Your task to perform on an android device: What's on my calendar today? Image 0: 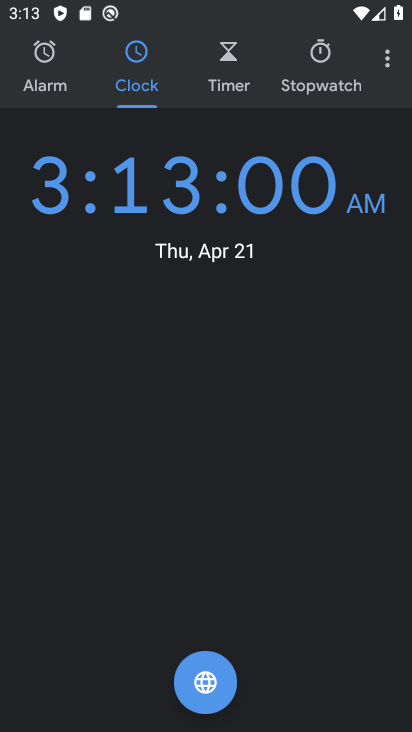
Step 0: press home button
Your task to perform on an android device: What's on my calendar today? Image 1: 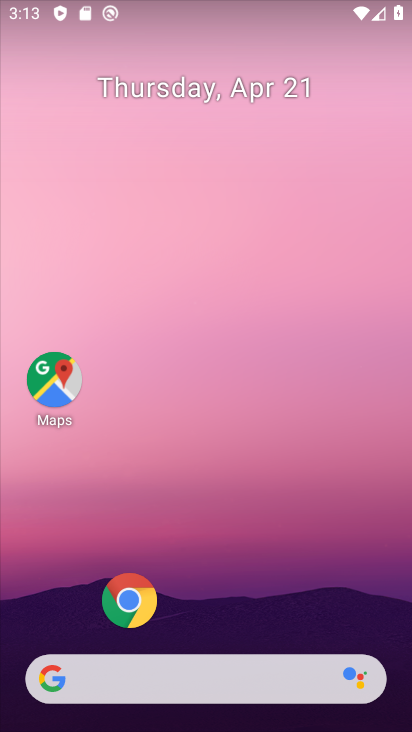
Step 1: drag from (115, 527) to (303, 194)
Your task to perform on an android device: What's on my calendar today? Image 2: 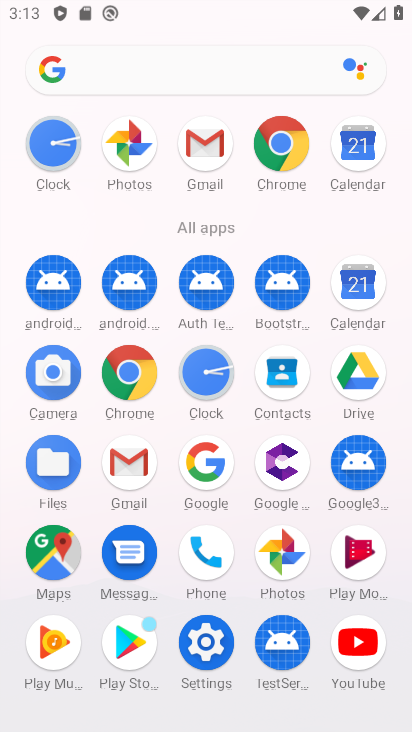
Step 2: click (353, 281)
Your task to perform on an android device: What's on my calendar today? Image 3: 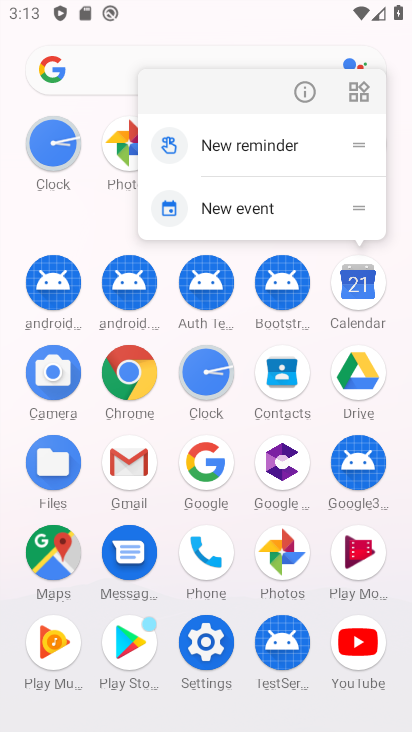
Step 3: click (359, 307)
Your task to perform on an android device: What's on my calendar today? Image 4: 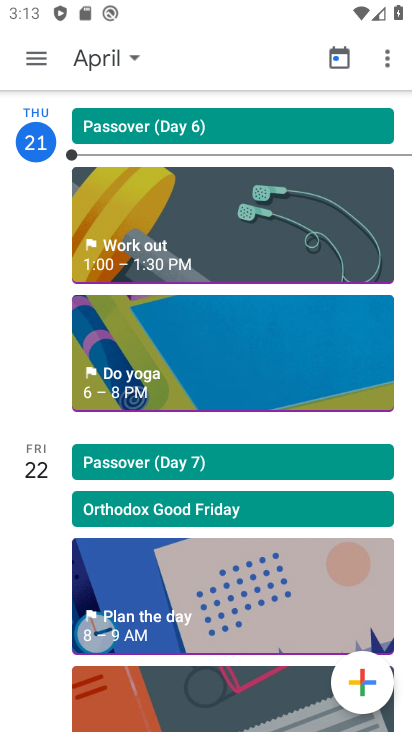
Step 4: click (120, 55)
Your task to perform on an android device: What's on my calendar today? Image 5: 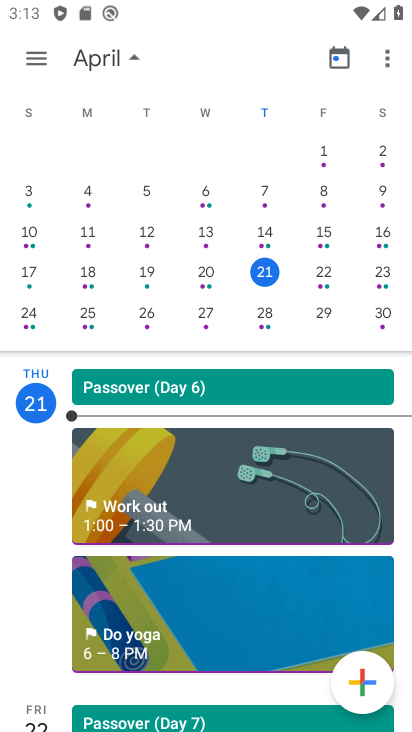
Step 5: click (261, 272)
Your task to perform on an android device: What's on my calendar today? Image 6: 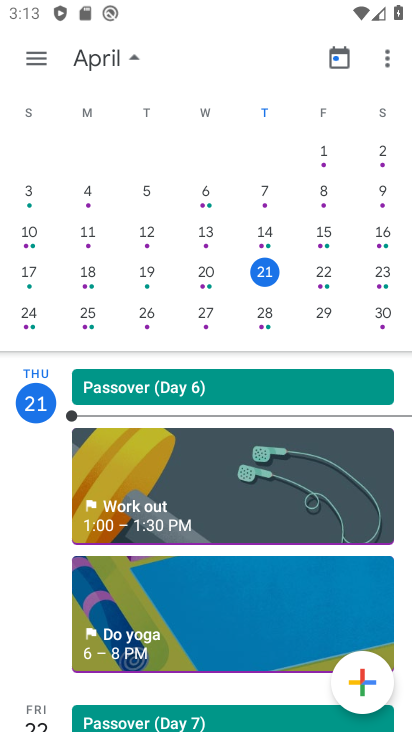
Step 6: task complete